Your task to perform on an android device: Open settings Image 0: 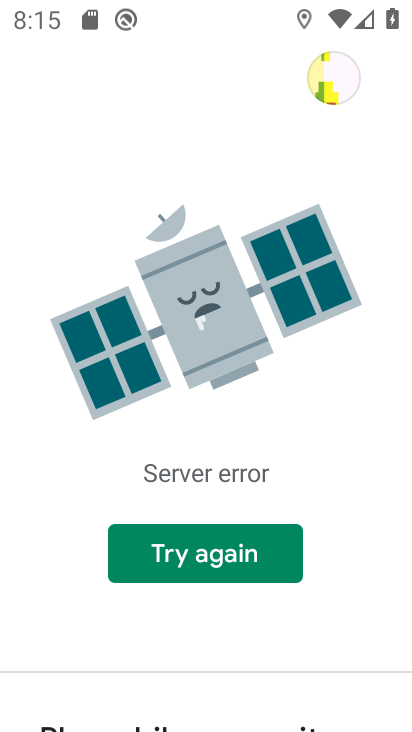
Step 0: press home button
Your task to perform on an android device: Open settings Image 1: 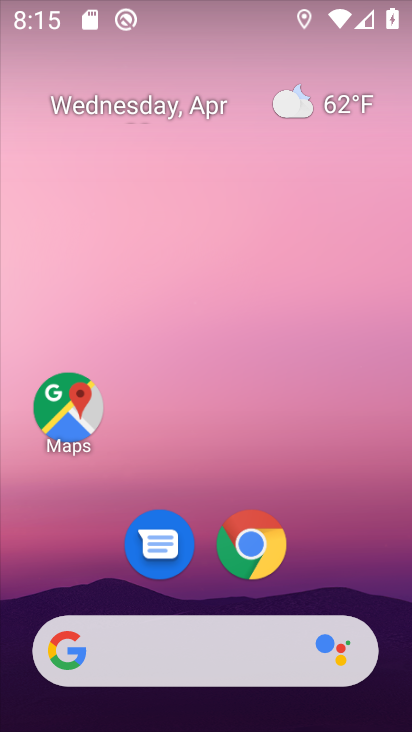
Step 1: drag from (336, 554) to (212, 5)
Your task to perform on an android device: Open settings Image 2: 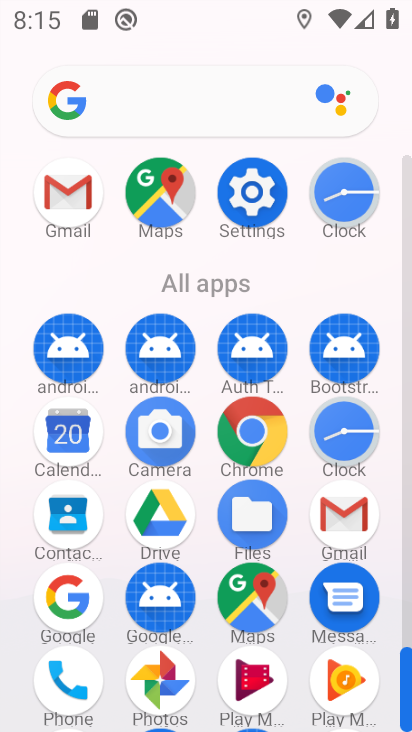
Step 2: click (244, 193)
Your task to perform on an android device: Open settings Image 3: 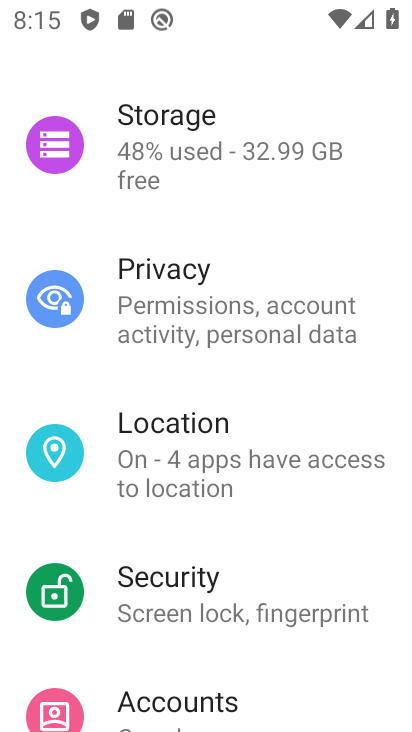
Step 3: task complete